Your task to perform on an android device: clear all cookies in the chrome app Image 0: 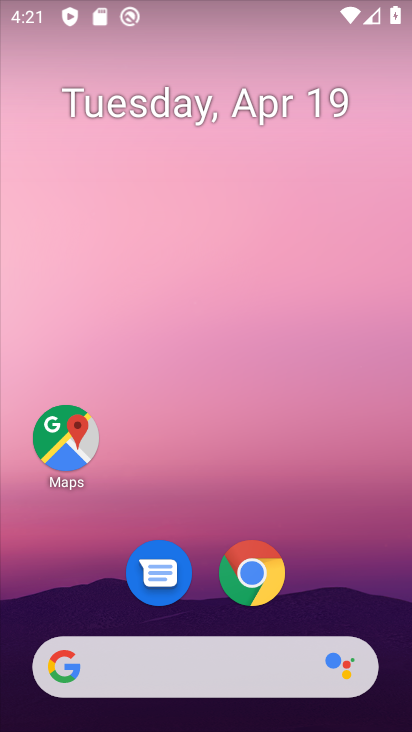
Step 0: drag from (402, 410) to (410, 535)
Your task to perform on an android device: clear all cookies in the chrome app Image 1: 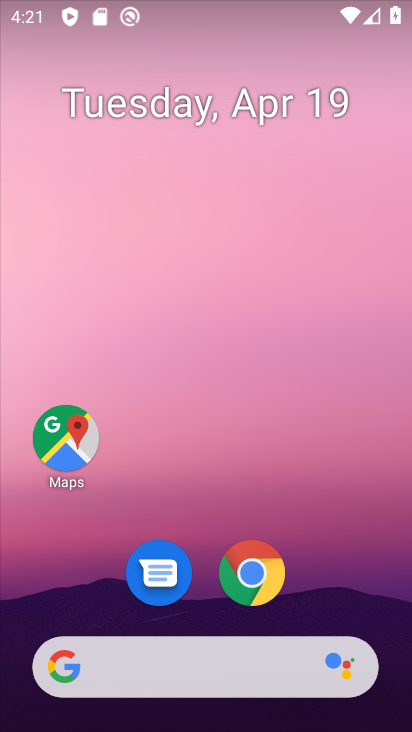
Step 1: drag from (350, 401) to (361, 20)
Your task to perform on an android device: clear all cookies in the chrome app Image 2: 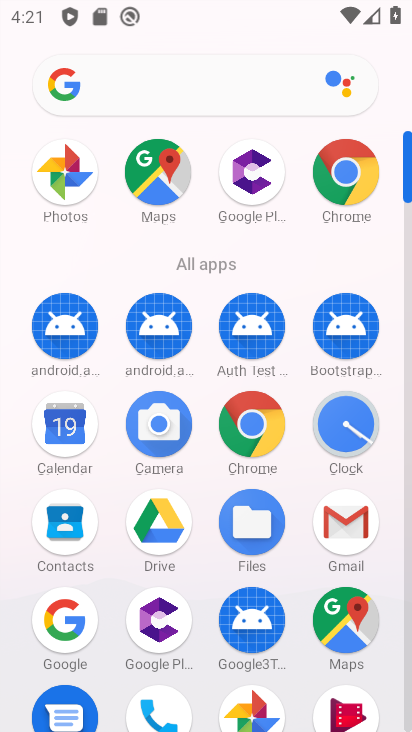
Step 2: click (360, 188)
Your task to perform on an android device: clear all cookies in the chrome app Image 3: 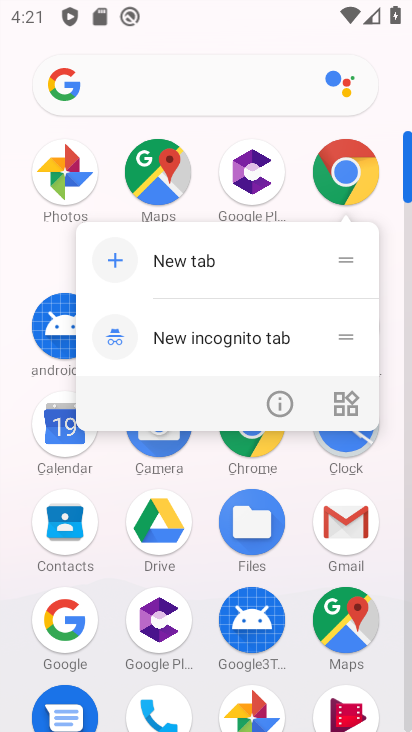
Step 3: click (361, 188)
Your task to perform on an android device: clear all cookies in the chrome app Image 4: 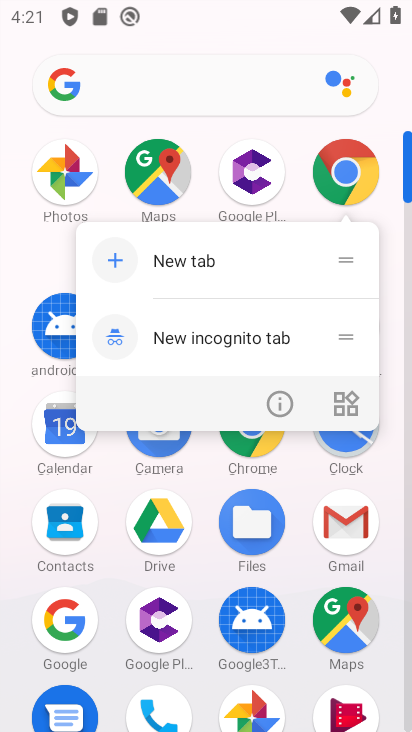
Step 4: click (359, 166)
Your task to perform on an android device: clear all cookies in the chrome app Image 5: 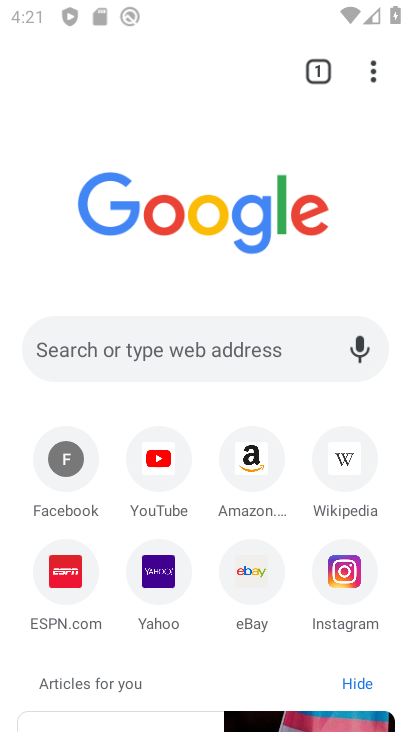
Step 5: click (358, 166)
Your task to perform on an android device: clear all cookies in the chrome app Image 6: 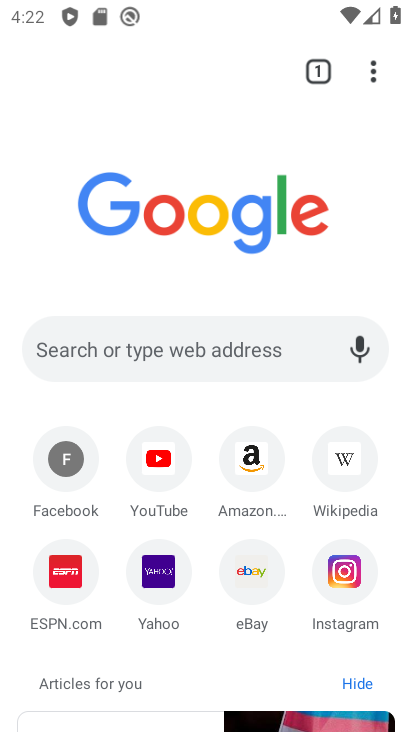
Step 6: click (376, 79)
Your task to perform on an android device: clear all cookies in the chrome app Image 7: 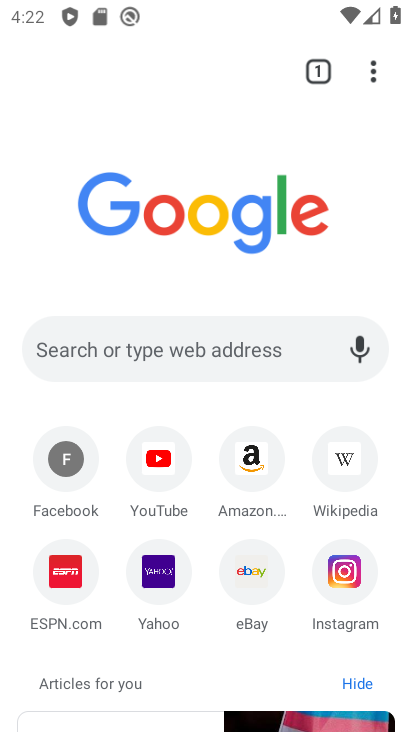
Step 7: task complete